Your task to perform on an android device: Go to Maps Image 0: 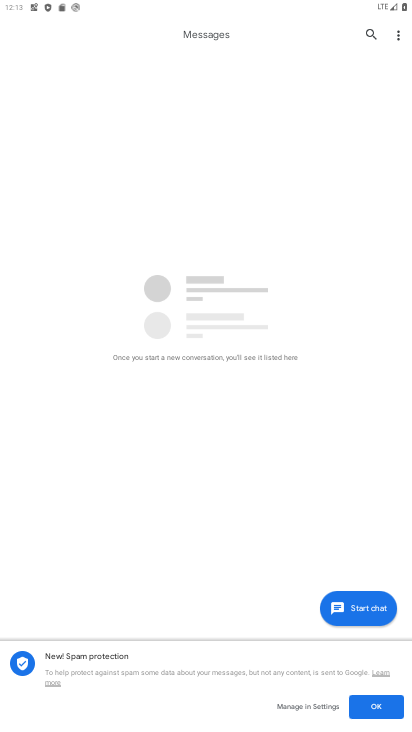
Step 0: drag from (159, 701) to (159, 286)
Your task to perform on an android device: Go to Maps Image 1: 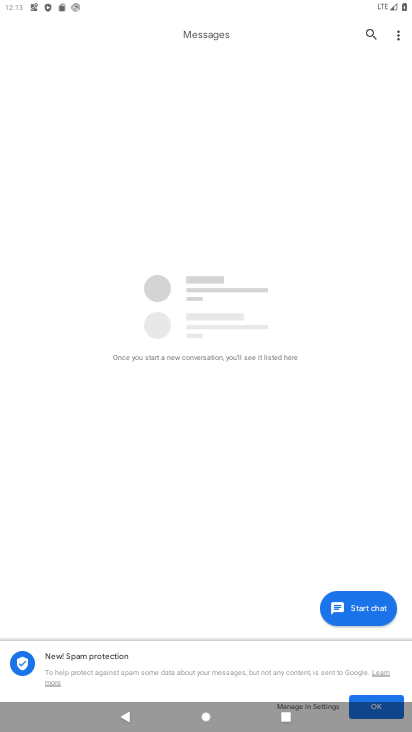
Step 1: click (201, 712)
Your task to perform on an android device: Go to Maps Image 2: 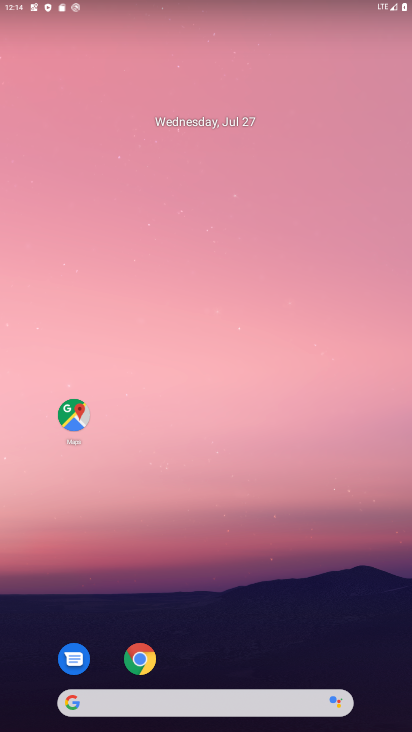
Step 2: click (69, 403)
Your task to perform on an android device: Go to Maps Image 3: 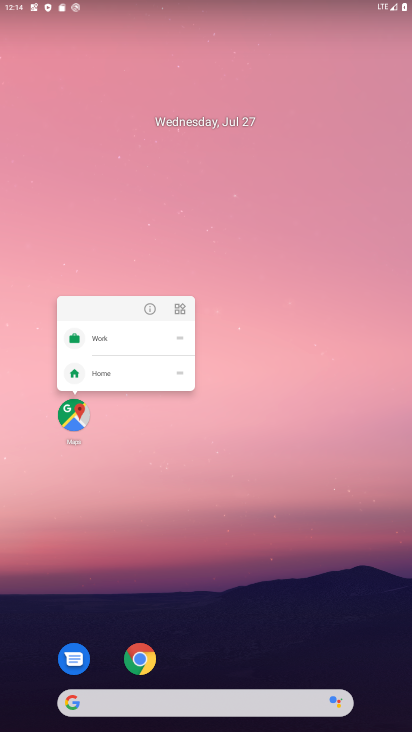
Step 3: click (69, 419)
Your task to perform on an android device: Go to Maps Image 4: 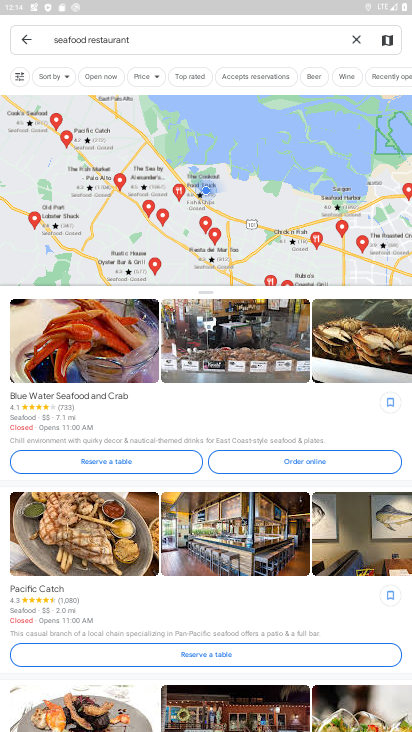
Step 4: task complete